Your task to perform on an android device: turn on data saver in the chrome app Image 0: 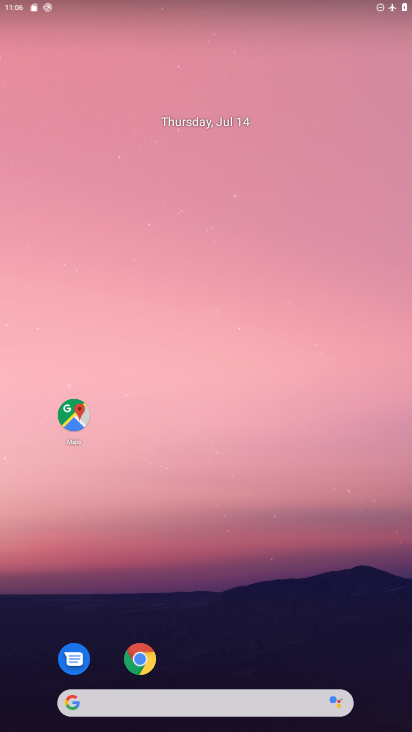
Step 0: drag from (307, 598) to (272, 125)
Your task to perform on an android device: turn on data saver in the chrome app Image 1: 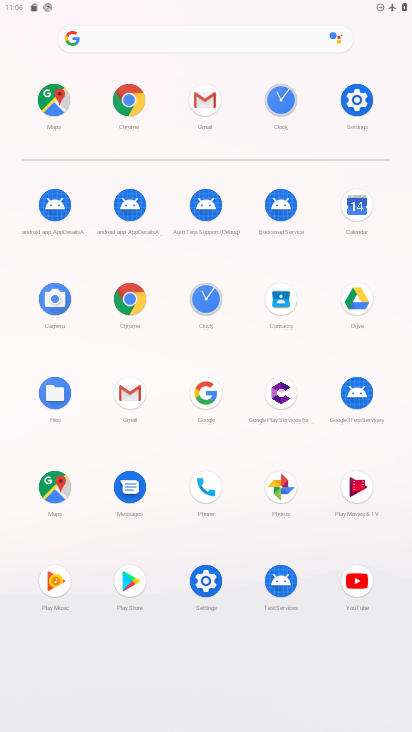
Step 1: click (129, 299)
Your task to perform on an android device: turn on data saver in the chrome app Image 2: 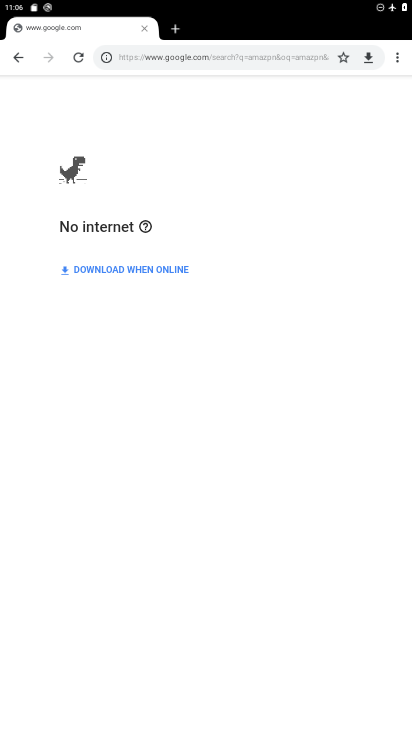
Step 2: drag from (400, 64) to (302, 361)
Your task to perform on an android device: turn on data saver in the chrome app Image 3: 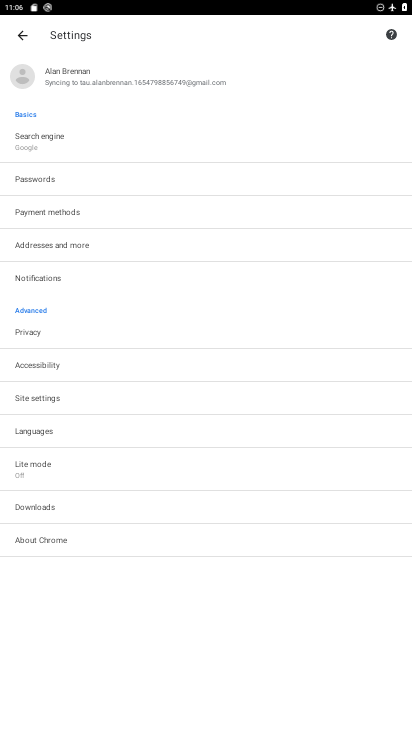
Step 3: click (100, 466)
Your task to perform on an android device: turn on data saver in the chrome app Image 4: 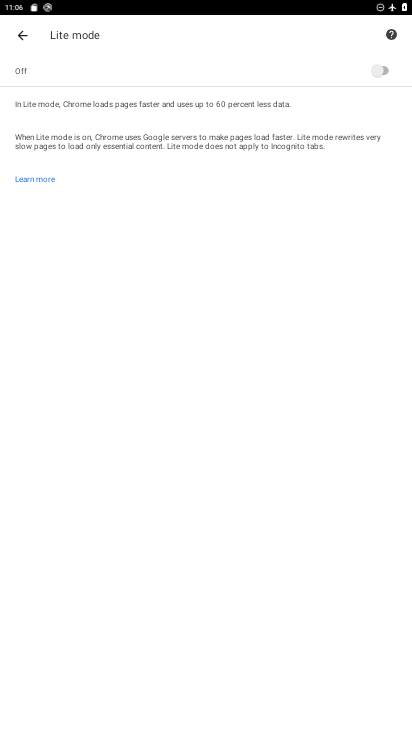
Step 4: click (380, 67)
Your task to perform on an android device: turn on data saver in the chrome app Image 5: 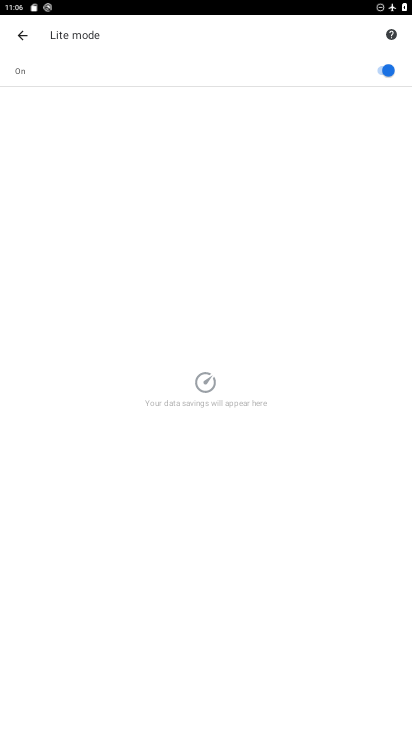
Step 5: task complete